Your task to perform on an android device: Open Chrome and go to the settings page Image 0: 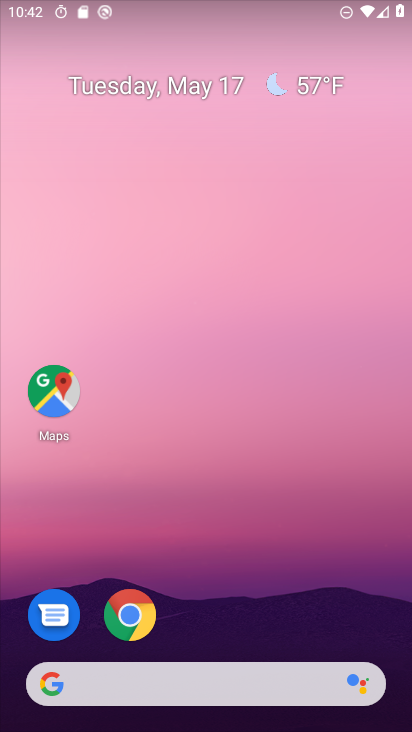
Step 0: click (133, 613)
Your task to perform on an android device: Open Chrome and go to the settings page Image 1: 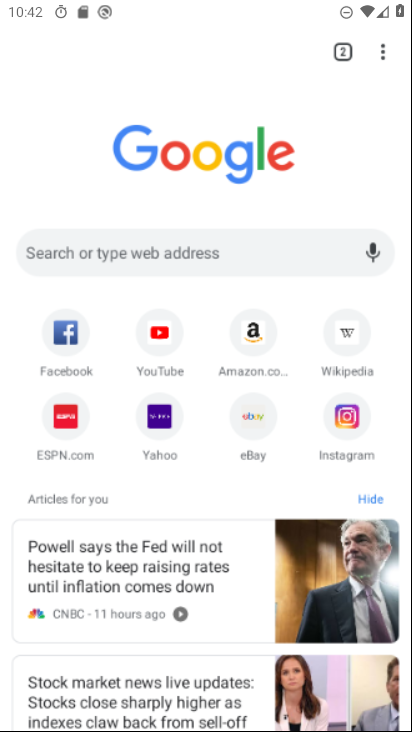
Step 1: click (374, 48)
Your task to perform on an android device: Open Chrome and go to the settings page Image 2: 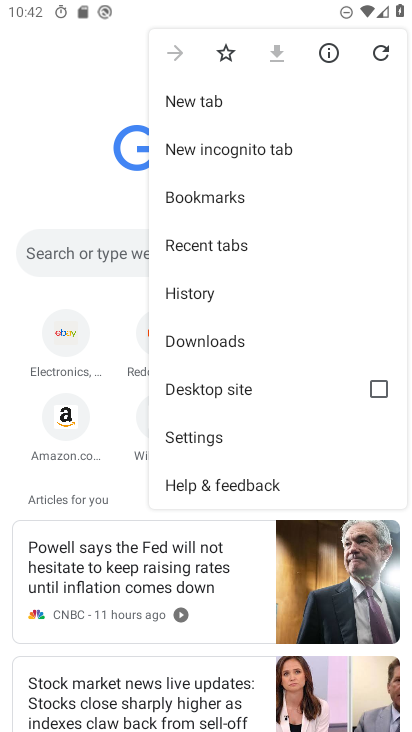
Step 2: click (235, 431)
Your task to perform on an android device: Open Chrome and go to the settings page Image 3: 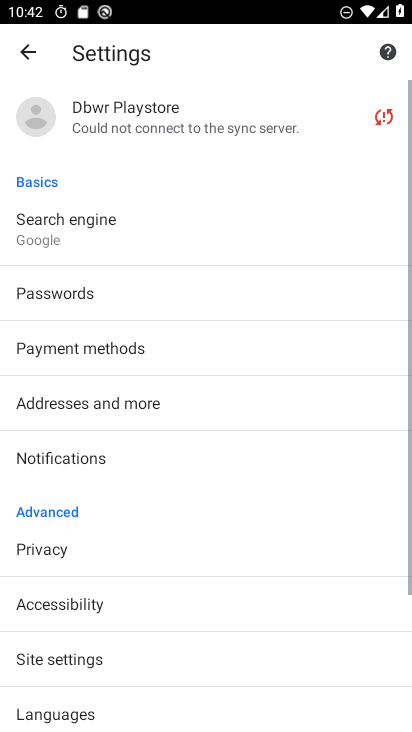
Step 3: task complete